Your task to perform on an android device: set the timer Image 0: 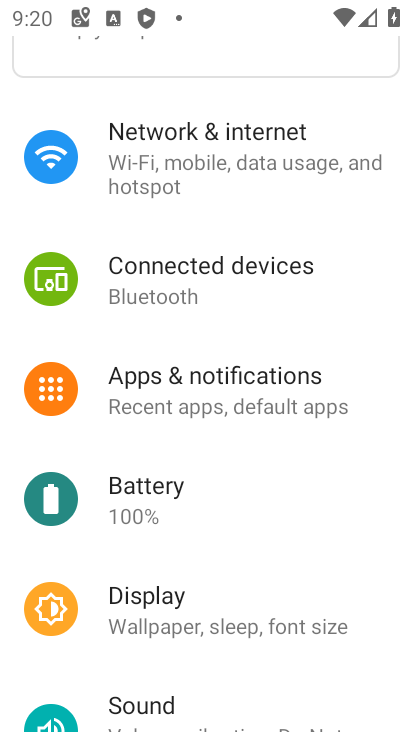
Step 0: press home button
Your task to perform on an android device: set the timer Image 1: 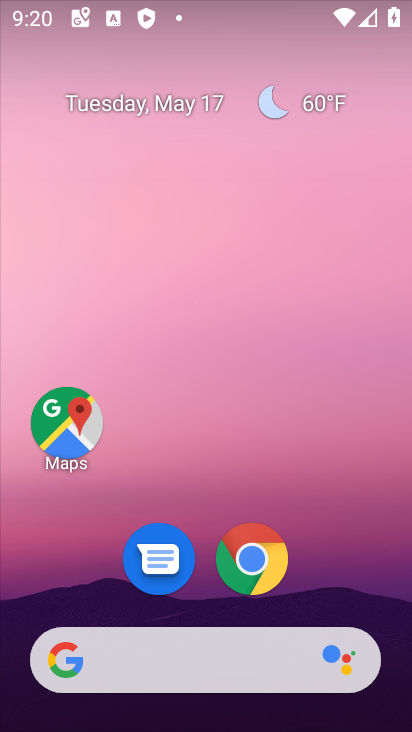
Step 1: drag from (327, 623) to (316, 159)
Your task to perform on an android device: set the timer Image 2: 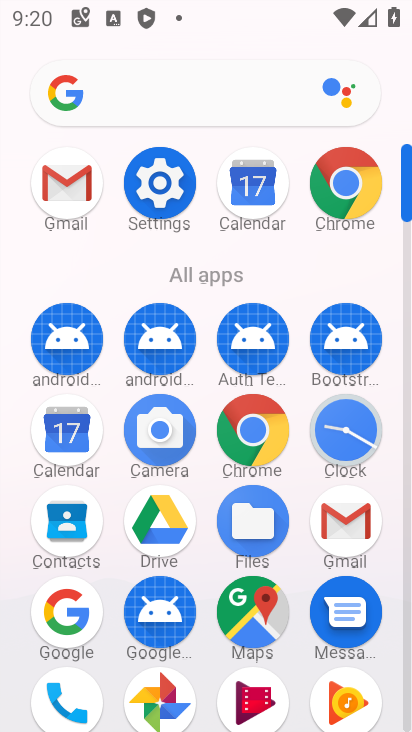
Step 2: click (352, 443)
Your task to perform on an android device: set the timer Image 3: 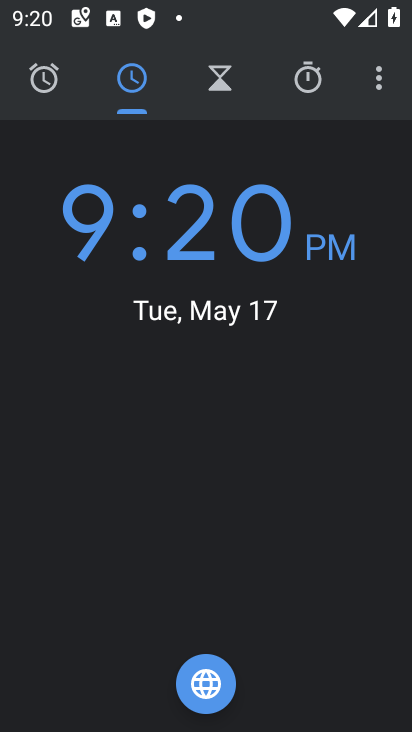
Step 3: click (304, 90)
Your task to perform on an android device: set the timer Image 4: 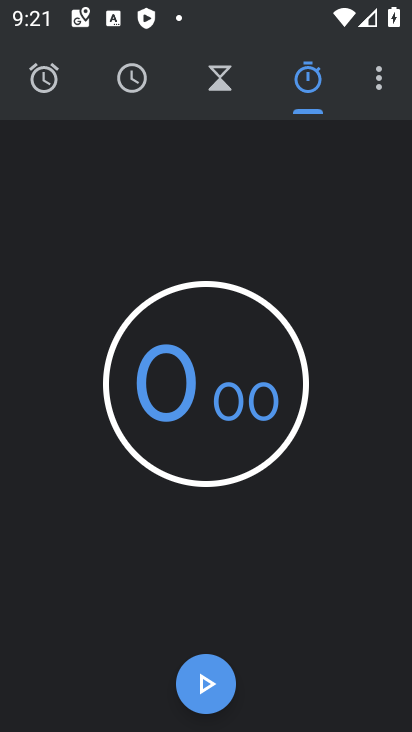
Step 4: click (208, 688)
Your task to perform on an android device: set the timer Image 5: 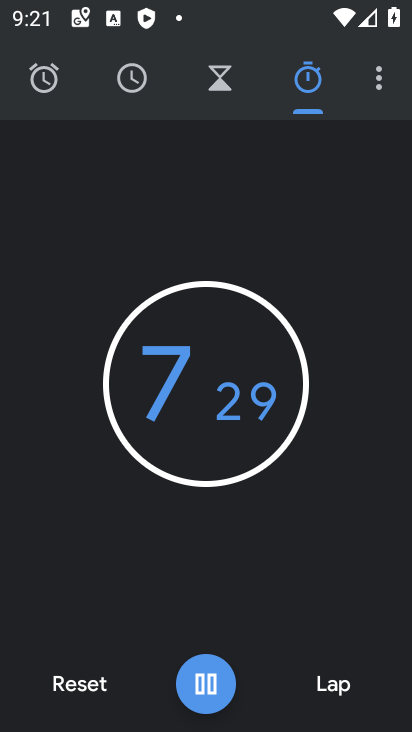
Step 5: task complete